Your task to perform on an android device: Go to CNN.com Image 0: 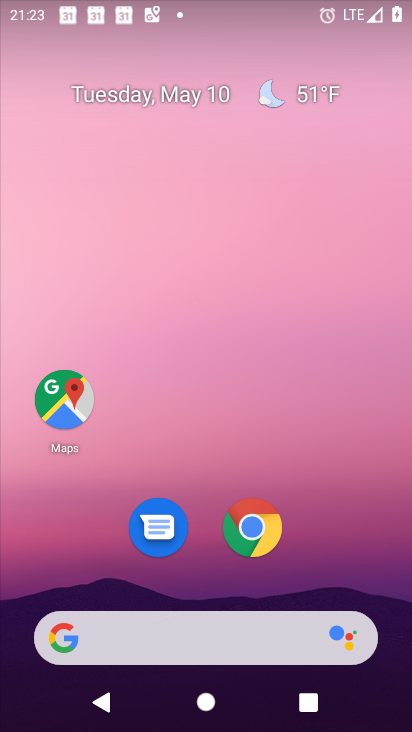
Step 0: click (247, 514)
Your task to perform on an android device: Go to CNN.com Image 1: 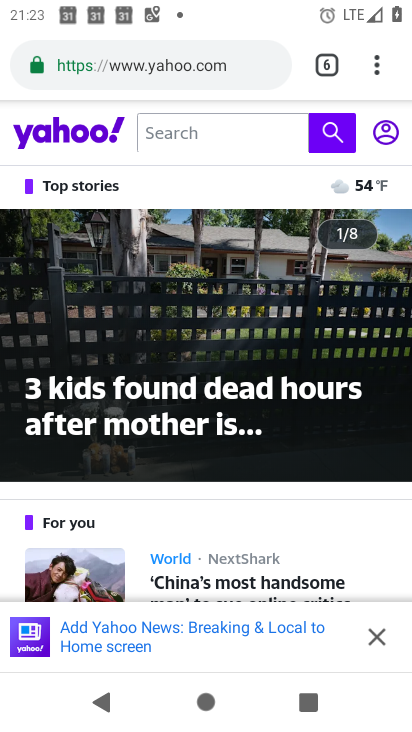
Step 1: click (336, 65)
Your task to perform on an android device: Go to CNN.com Image 2: 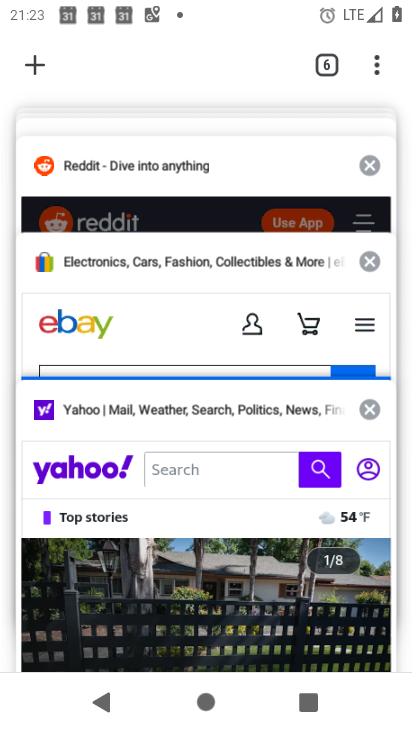
Step 2: click (22, 62)
Your task to perform on an android device: Go to CNN.com Image 3: 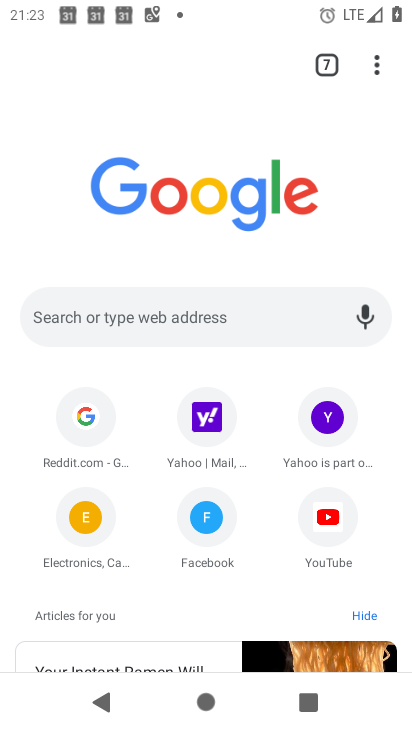
Step 3: click (149, 299)
Your task to perform on an android device: Go to CNN.com Image 4: 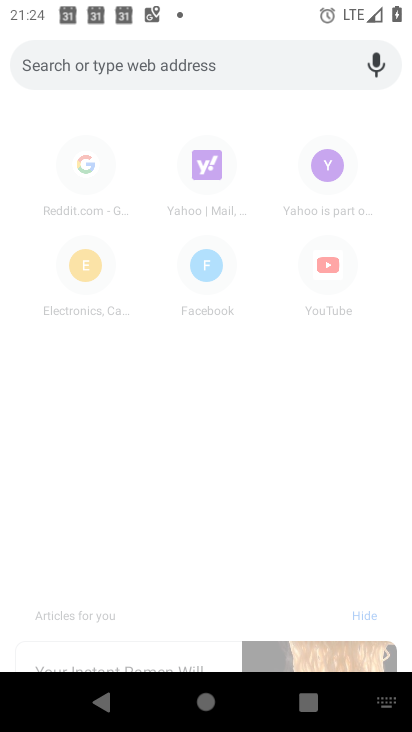
Step 4: type "cnn"
Your task to perform on an android device: Go to CNN.com Image 5: 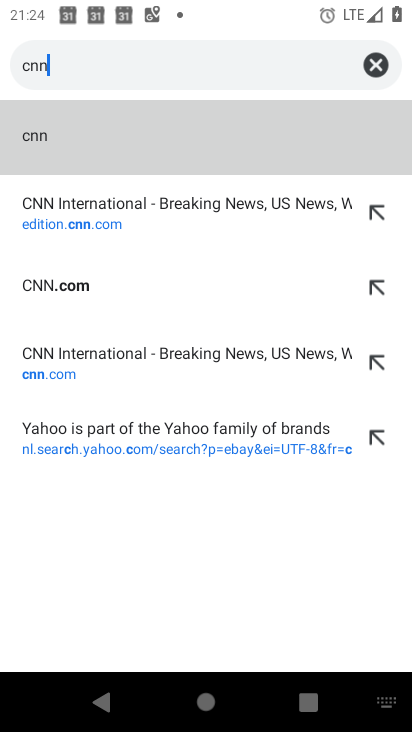
Step 5: type ""
Your task to perform on an android device: Go to CNN.com Image 6: 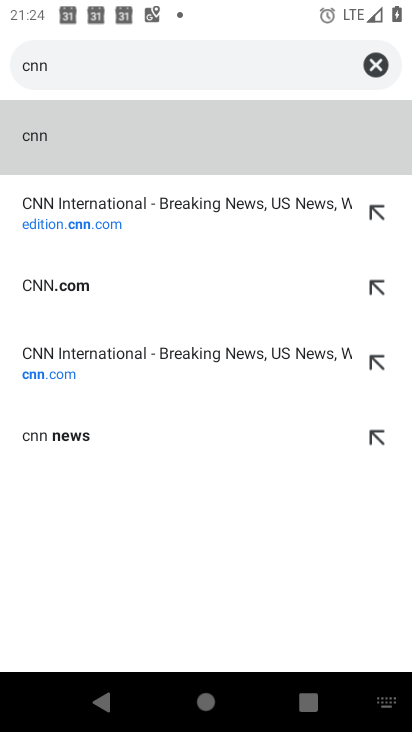
Step 6: click (97, 197)
Your task to perform on an android device: Go to CNN.com Image 7: 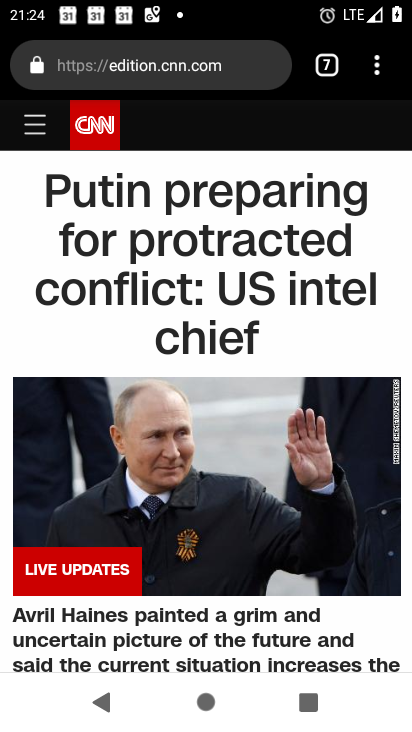
Step 7: task complete